Your task to perform on an android device: check battery use Image 0: 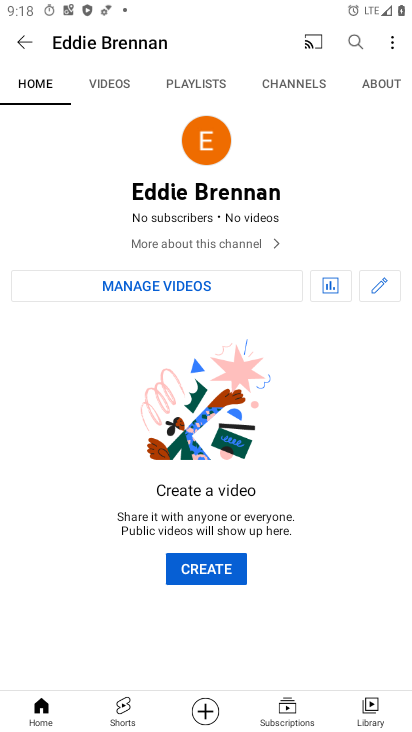
Step 0: press home button
Your task to perform on an android device: check battery use Image 1: 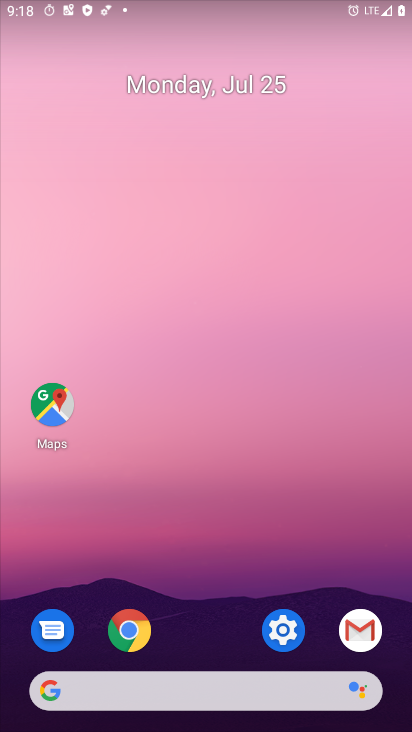
Step 1: click (280, 625)
Your task to perform on an android device: check battery use Image 2: 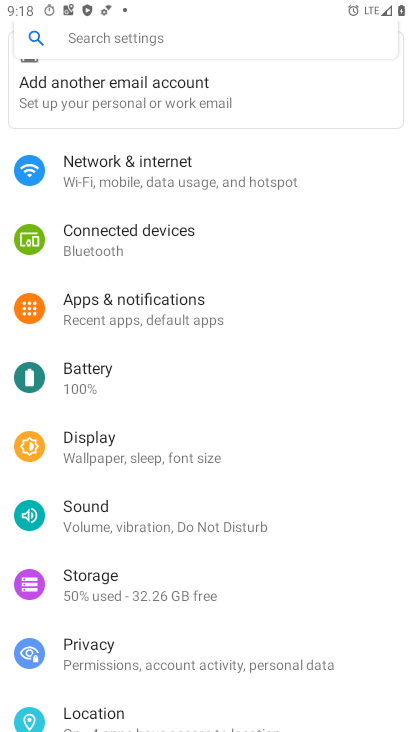
Step 2: click (128, 388)
Your task to perform on an android device: check battery use Image 3: 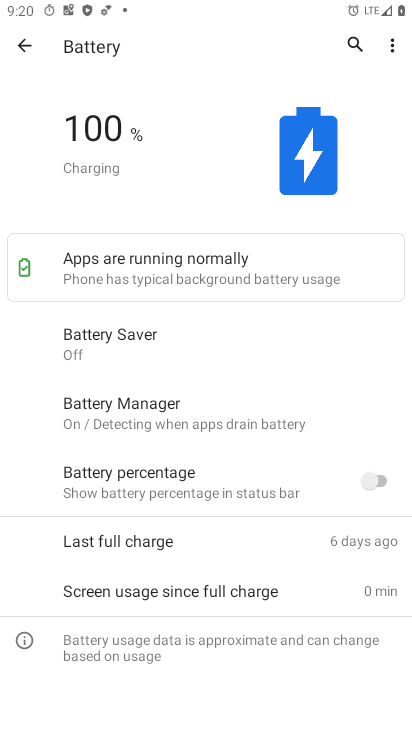
Step 3: task complete